Your task to perform on an android device: all mails in gmail Image 0: 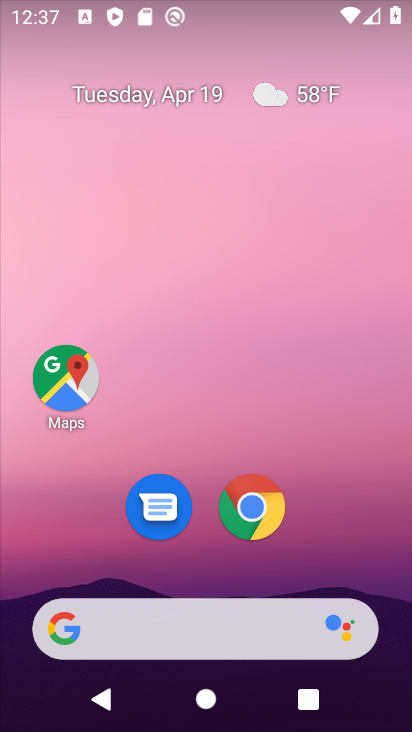
Step 0: click (61, 375)
Your task to perform on an android device: all mails in gmail Image 1: 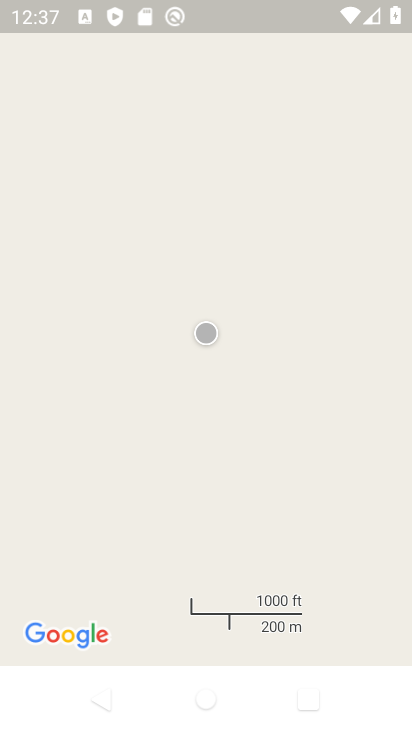
Step 1: press home button
Your task to perform on an android device: all mails in gmail Image 2: 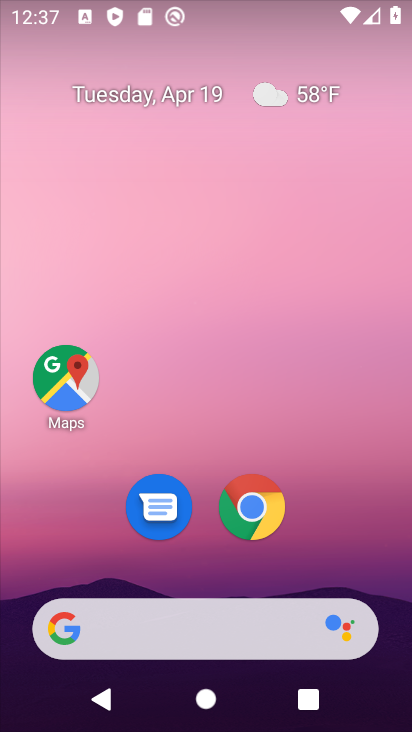
Step 2: drag from (259, 229) to (264, 108)
Your task to perform on an android device: all mails in gmail Image 3: 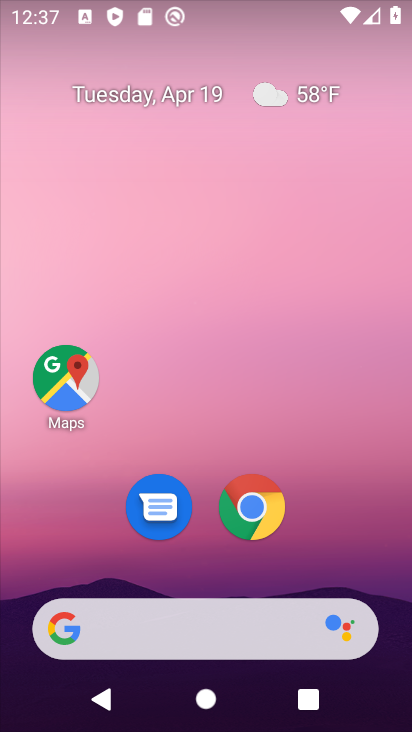
Step 3: drag from (215, 564) to (234, 14)
Your task to perform on an android device: all mails in gmail Image 4: 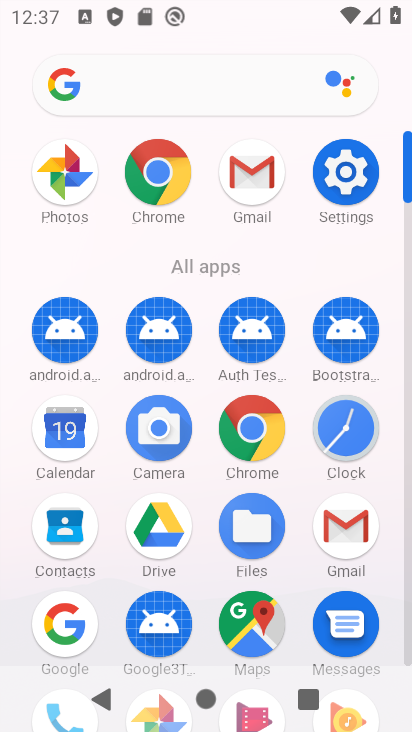
Step 4: click (343, 535)
Your task to perform on an android device: all mails in gmail Image 5: 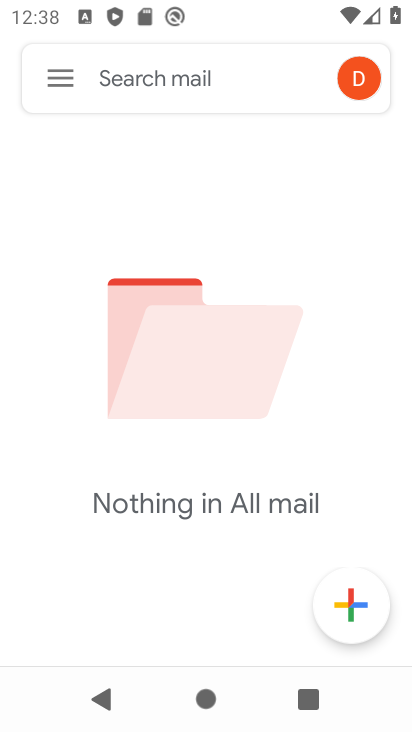
Step 5: task complete